Your task to perform on an android device: show emergency info Image 0: 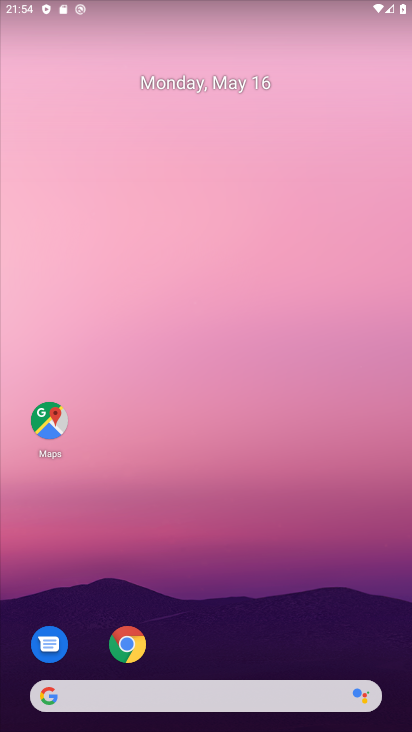
Step 0: drag from (125, 400) to (321, 157)
Your task to perform on an android device: show emergency info Image 1: 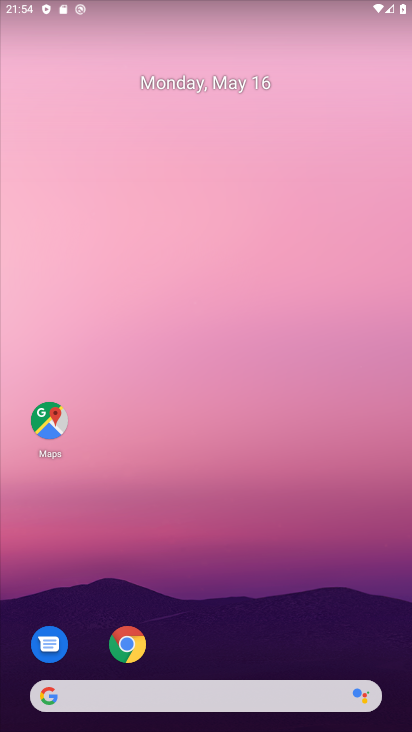
Step 1: drag from (19, 566) to (254, 222)
Your task to perform on an android device: show emergency info Image 2: 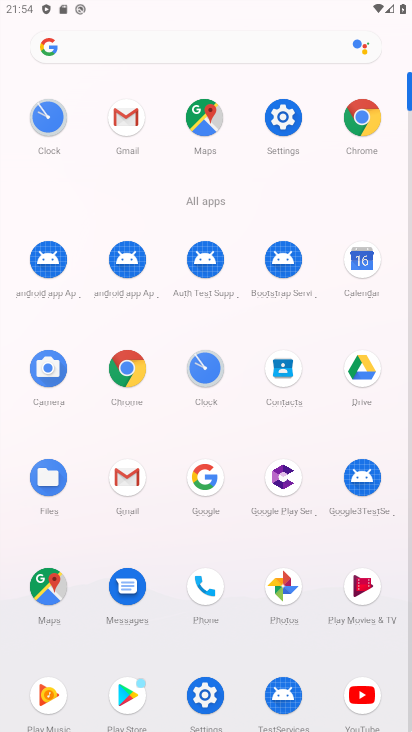
Step 2: click (273, 110)
Your task to perform on an android device: show emergency info Image 3: 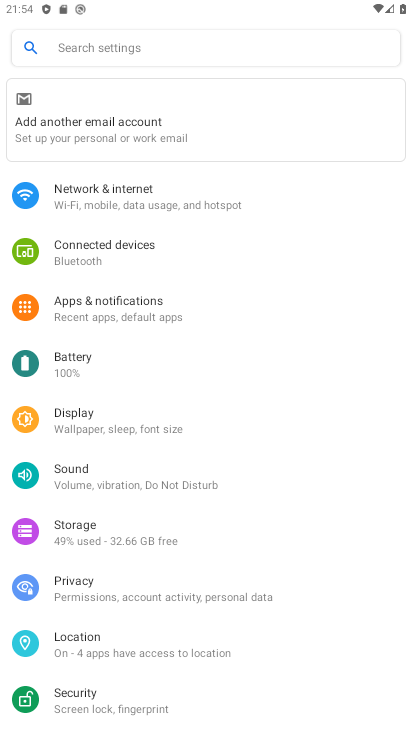
Step 3: drag from (14, 596) to (243, 186)
Your task to perform on an android device: show emergency info Image 4: 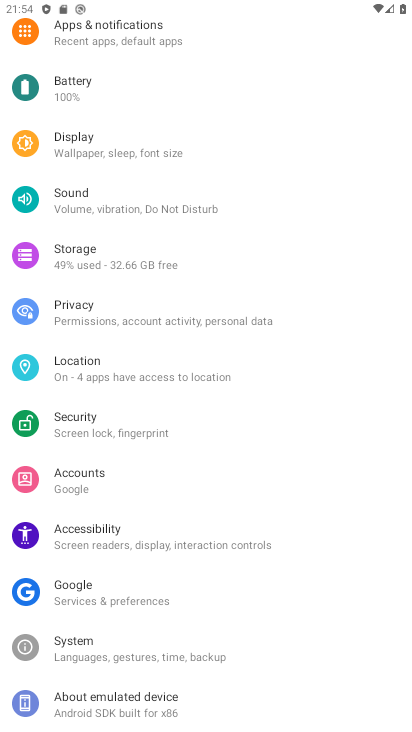
Step 4: click (100, 701)
Your task to perform on an android device: show emergency info Image 5: 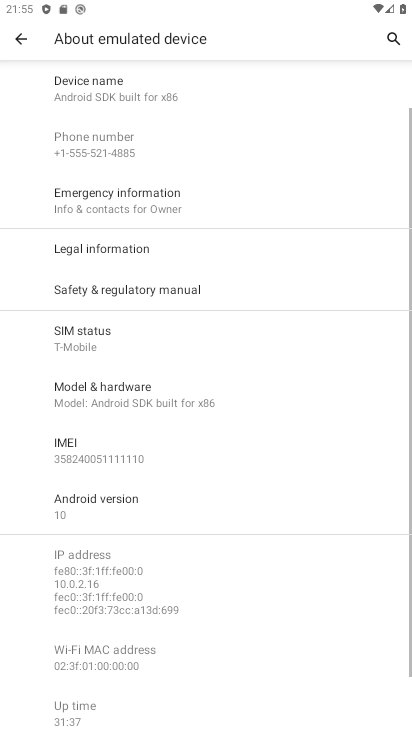
Step 5: click (91, 694)
Your task to perform on an android device: show emergency info Image 6: 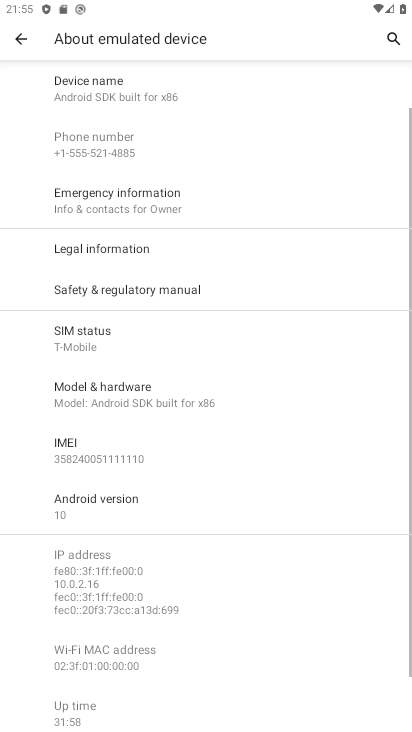
Step 6: click (91, 694)
Your task to perform on an android device: show emergency info Image 7: 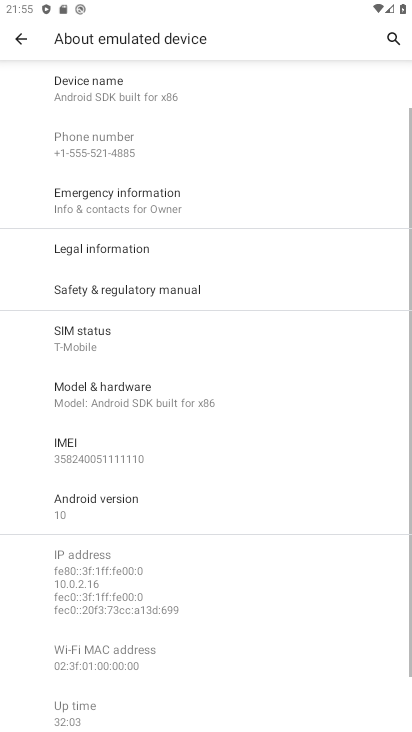
Step 7: click (128, 203)
Your task to perform on an android device: show emergency info Image 8: 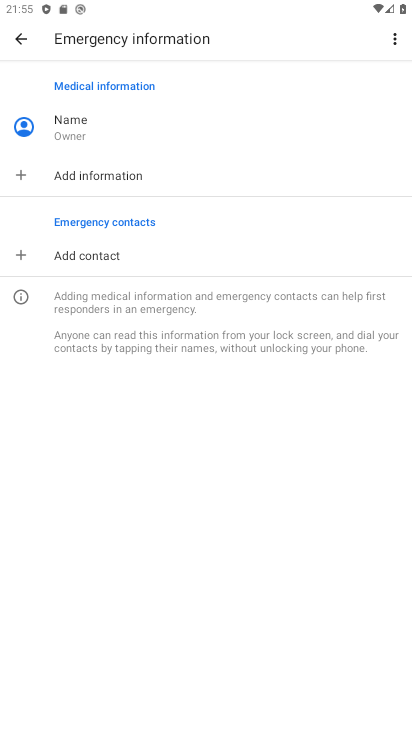
Step 8: task complete